Your task to perform on an android device: turn off translation in the chrome app Image 0: 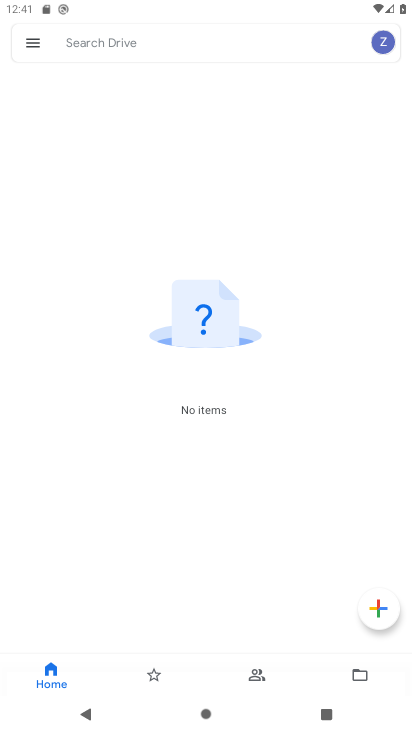
Step 0: press home button
Your task to perform on an android device: turn off translation in the chrome app Image 1: 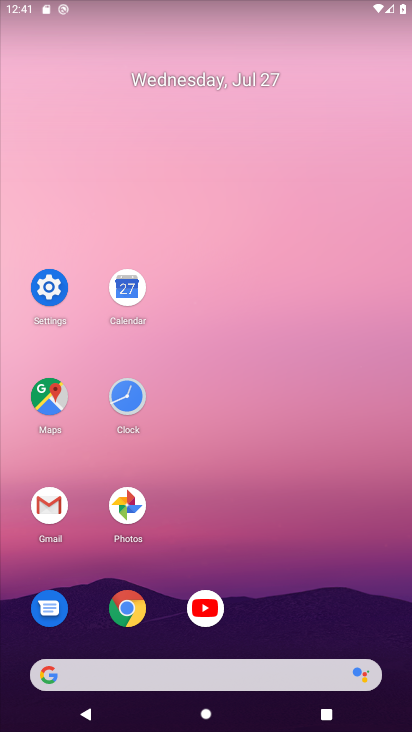
Step 1: click (125, 609)
Your task to perform on an android device: turn off translation in the chrome app Image 2: 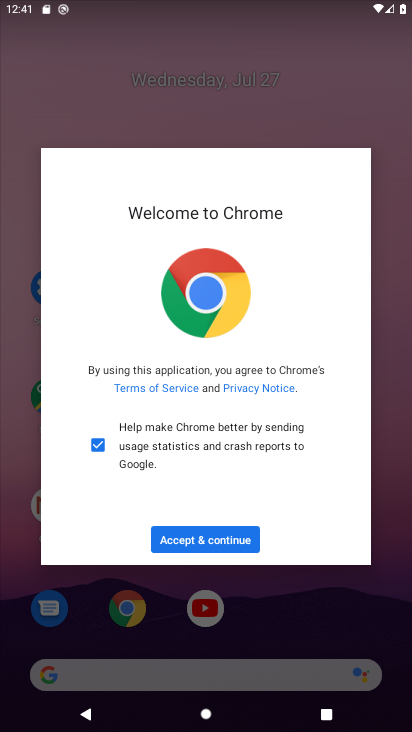
Step 2: click (194, 536)
Your task to perform on an android device: turn off translation in the chrome app Image 3: 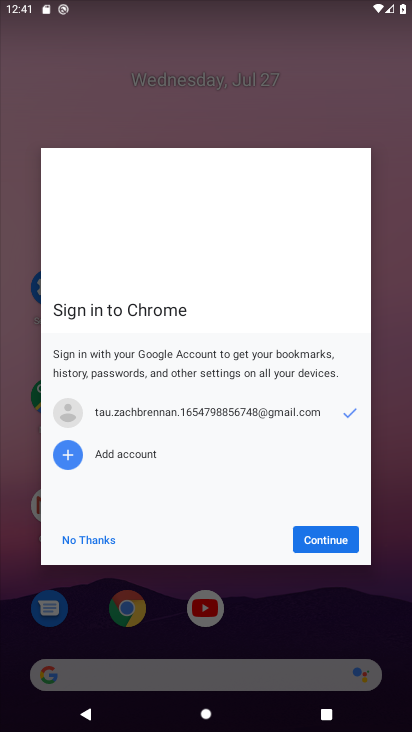
Step 3: click (319, 545)
Your task to perform on an android device: turn off translation in the chrome app Image 4: 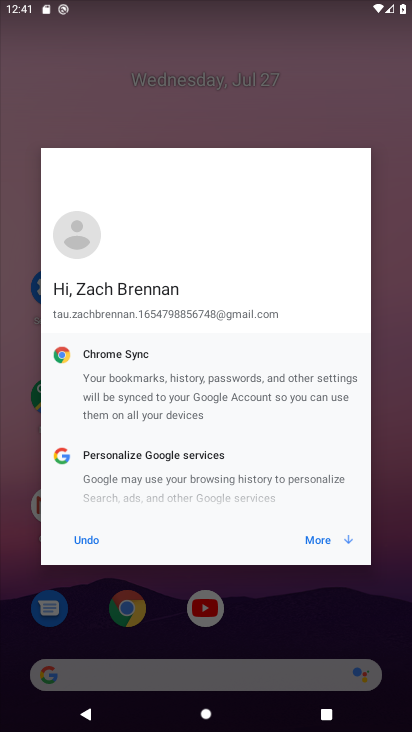
Step 4: click (349, 541)
Your task to perform on an android device: turn off translation in the chrome app Image 5: 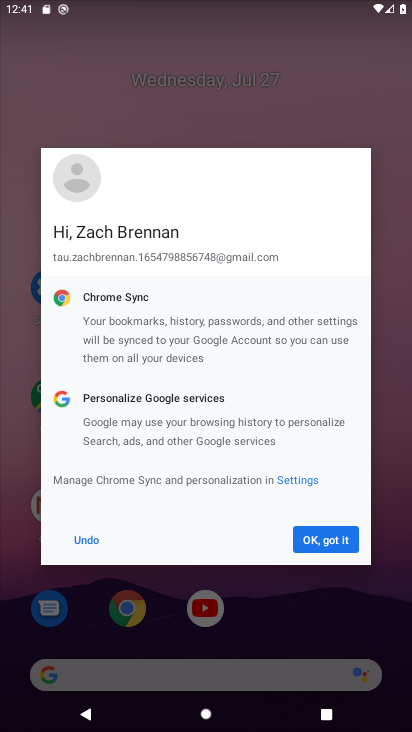
Step 5: click (332, 541)
Your task to perform on an android device: turn off translation in the chrome app Image 6: 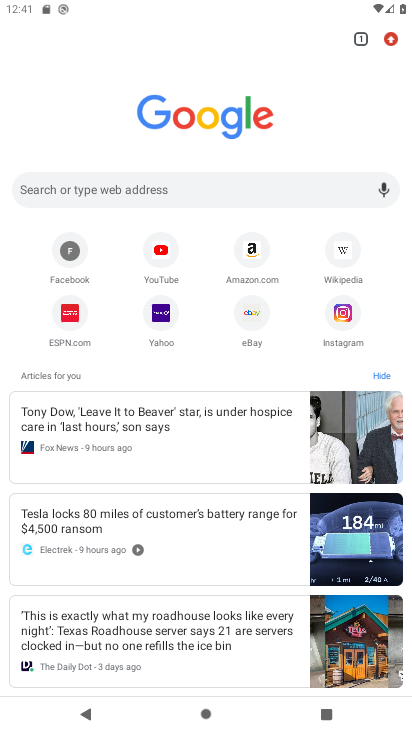
Step 6: click (387, 42)
Your task to perform on an android device: turn off translation in the chrome app Image 7: 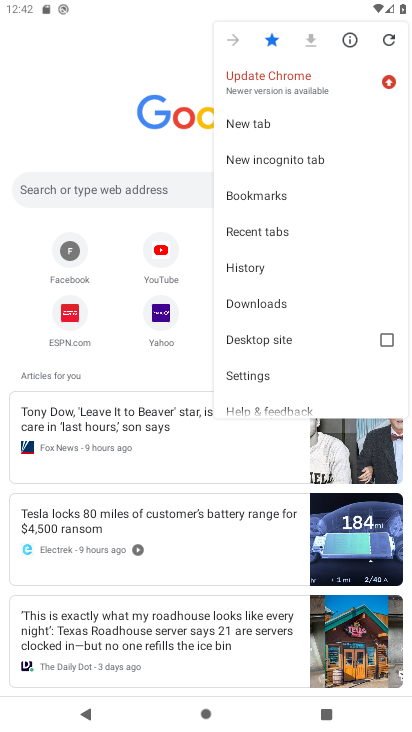
Step 7: click (246, 374)
Your task to perform on an android device: turn off translation in the chrome app Image 8: 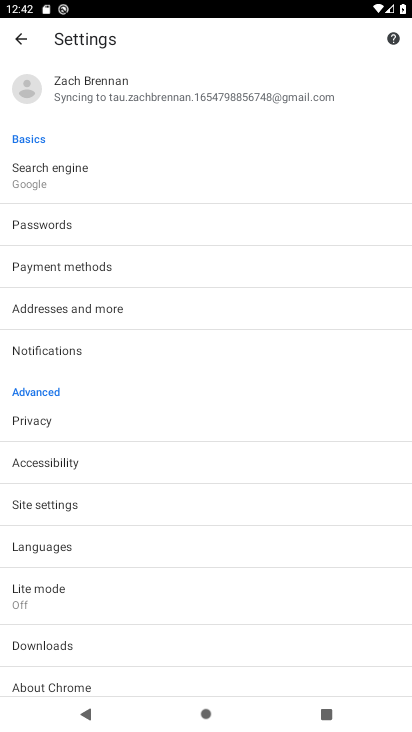
Step 8: click (37, 548)
Your task to perform on an android device: turn off translation in the chrome app Image 9: 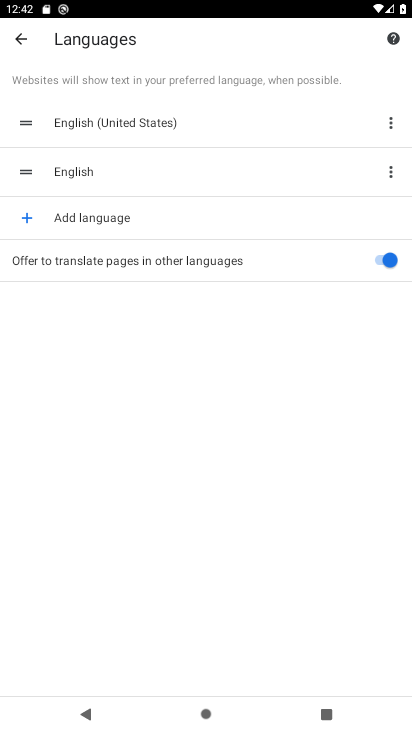
Step 9: click (389, 257)
Your task to perform on an android device: turn off translation in the chrome app Image 10: 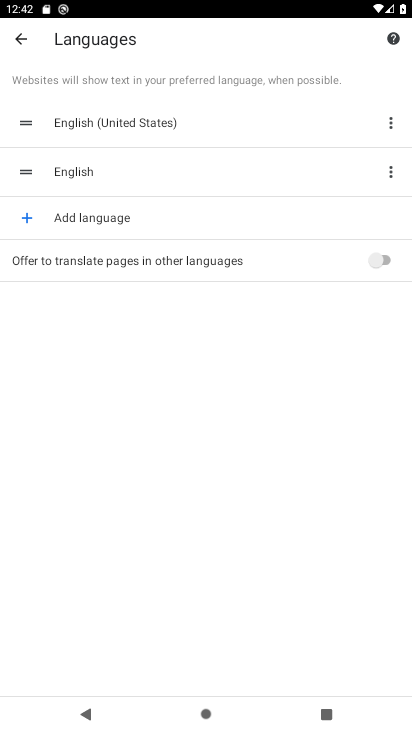
Step 10: task complete